Your task to perform on an android device: Is it going to rain tomorrow? Image 0: 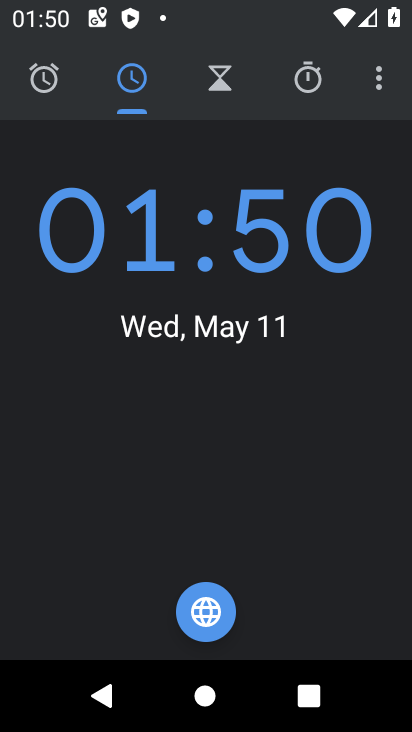
Step 0: press home button
Your task to perform on an android device: Is it going to rain tomorrow? Image 1: 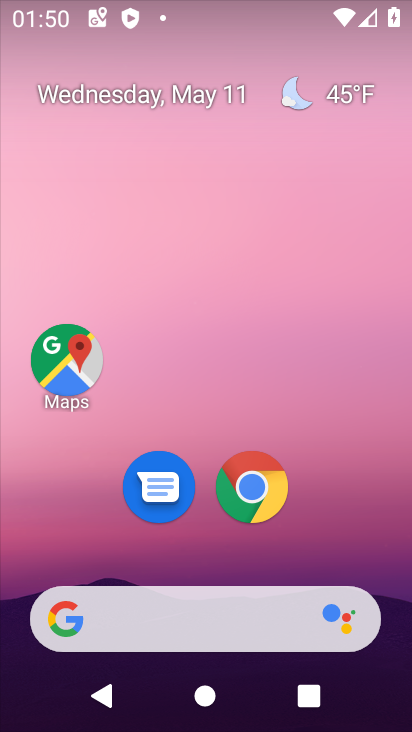
Step 1: click (302, 101)
Your task to perform on an android device: Is it going to rain tomorrow? Image 2: 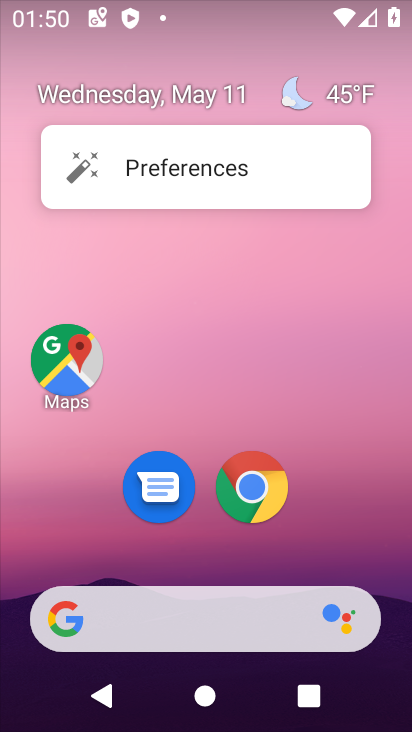
Step 2: click (344, 103)
Your task to perform on an android device: Is it going to rain tomorrow? Image 3: 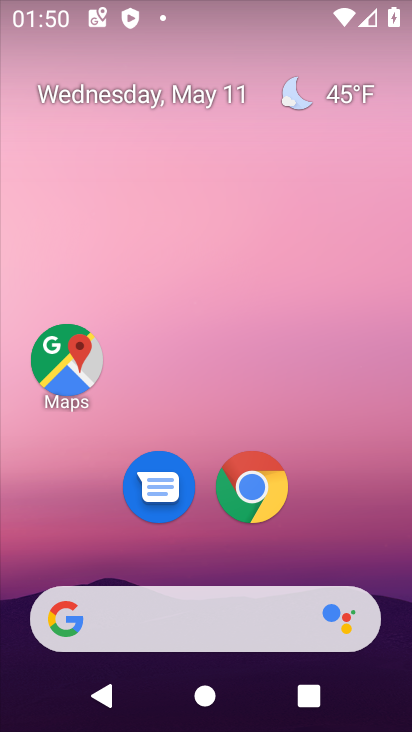
Step 3: click (358, 86)
Your task to perform on an android device: Is it going to rain tomorrow? Image 4: 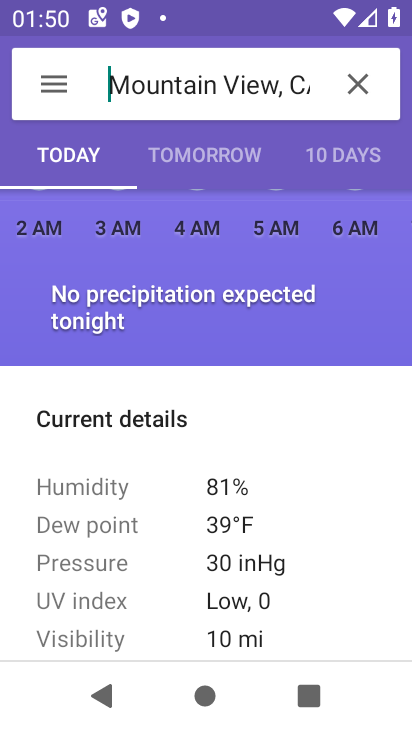
Step 4: click (189, 164)
Your task to perform on an android device: Is it going to rain tomorrow? Image 5: 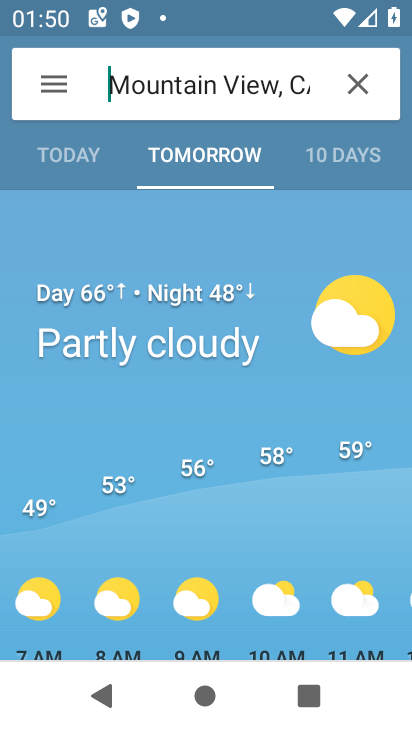
Step 5: task complete